Your task to perform on an android device: toggle wifi Image 0: 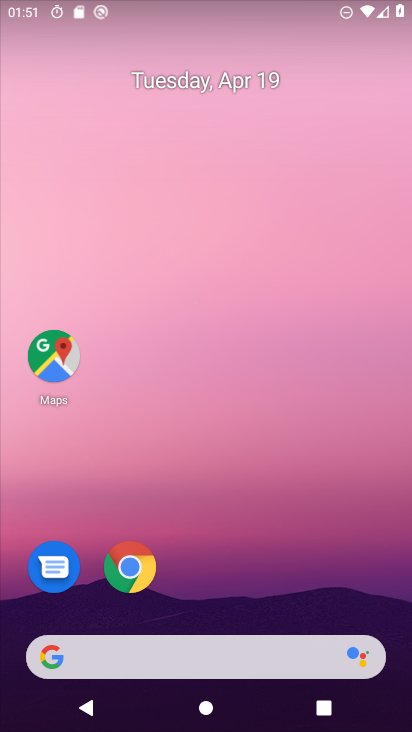
Step 0: drag from (248, 7) to (294, 570)
Your task to perform on an android device: toggle wifi Image 1: 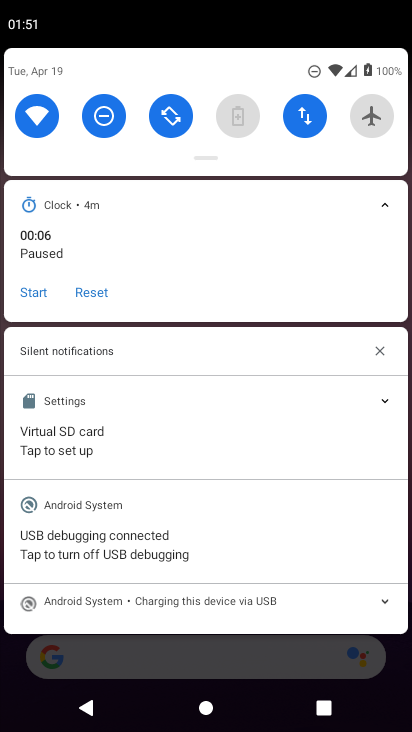
Step 1: click (39, 111)
Your task to perform on an android device: toggle wifi Image 2: 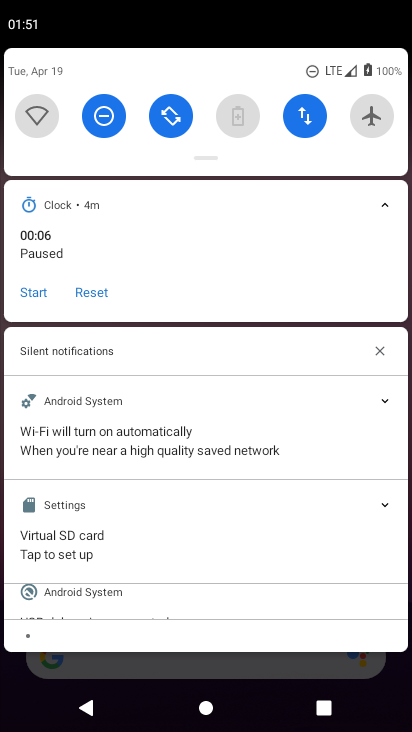
Step 2: task complete